Your task to perform on an android device: Is it going to rain today? Image 0: 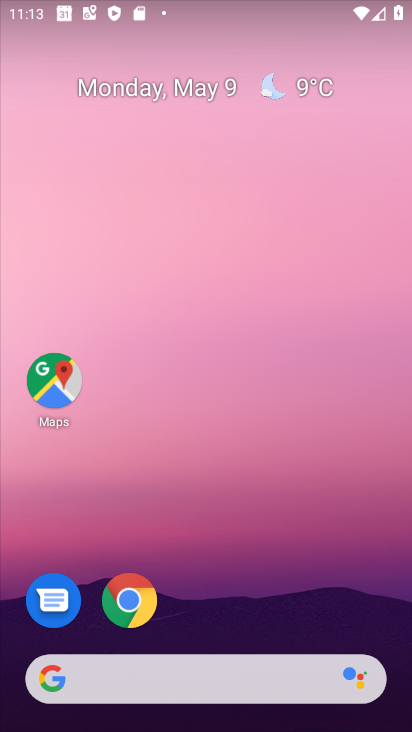
Step 0: click (116, 605)
Your task to perform on an android device: Is it going to rain today? Image 1: 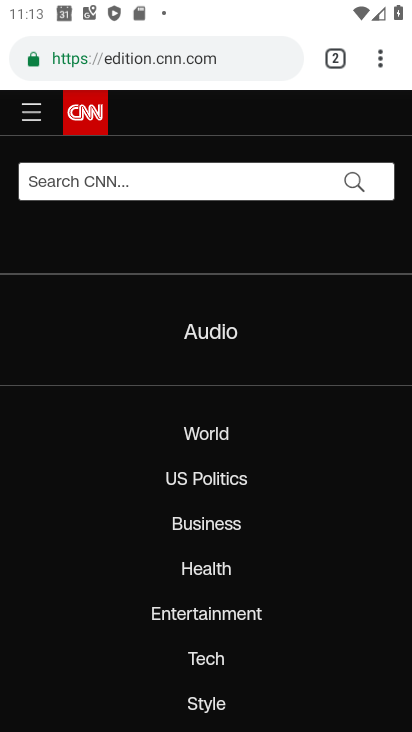
Step 1: click (178, 59)
Your task to perform on an android device: Is it going to rain today? Image 2: 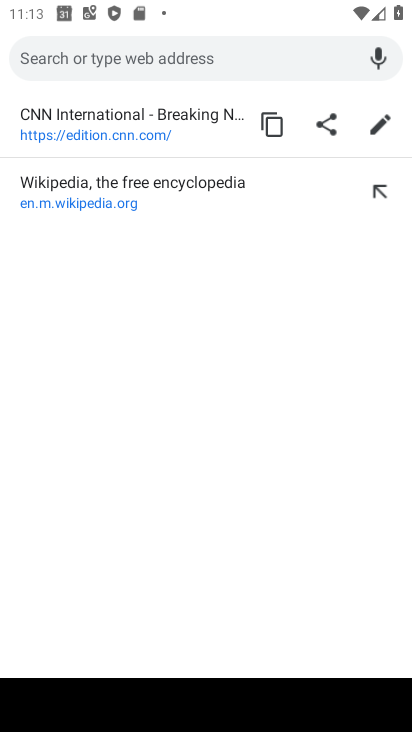
Step 2: type "is it going to rain today"
Your task to perform on an android device: Is it going to rain today? Image 3: 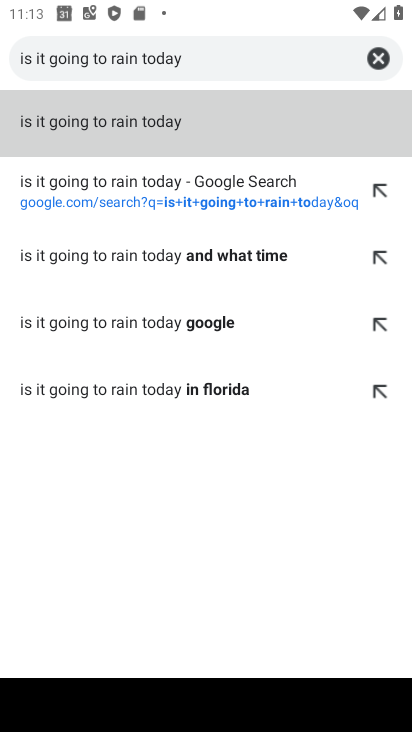
Step 3: click (91, 198)
Your task to perform on an android device: Is it going to rain today? Image 4: 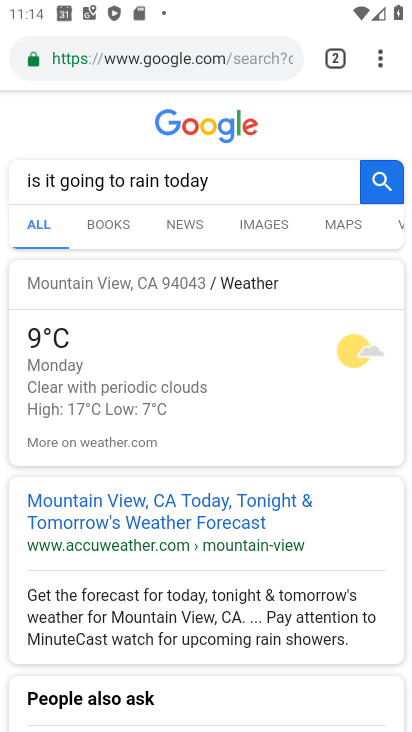
Step 4: task complete